Your task to perform on an android device: open app "VLC for Android" (install if not already installed) Image 0: 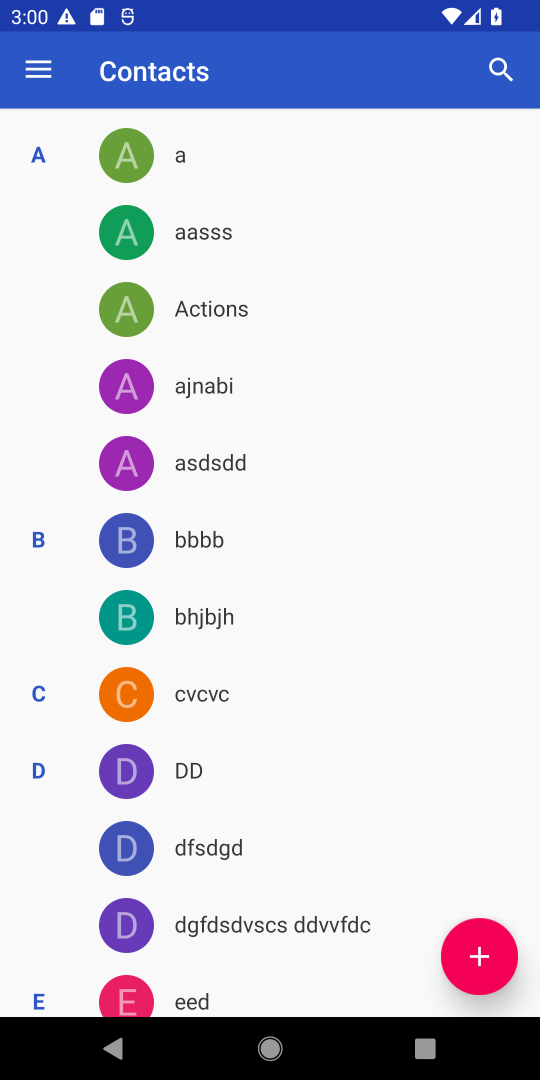
Step 0: press home button
Your task to perform on an android device: open app "VLC for Android" (install if not already installed) Image 1: 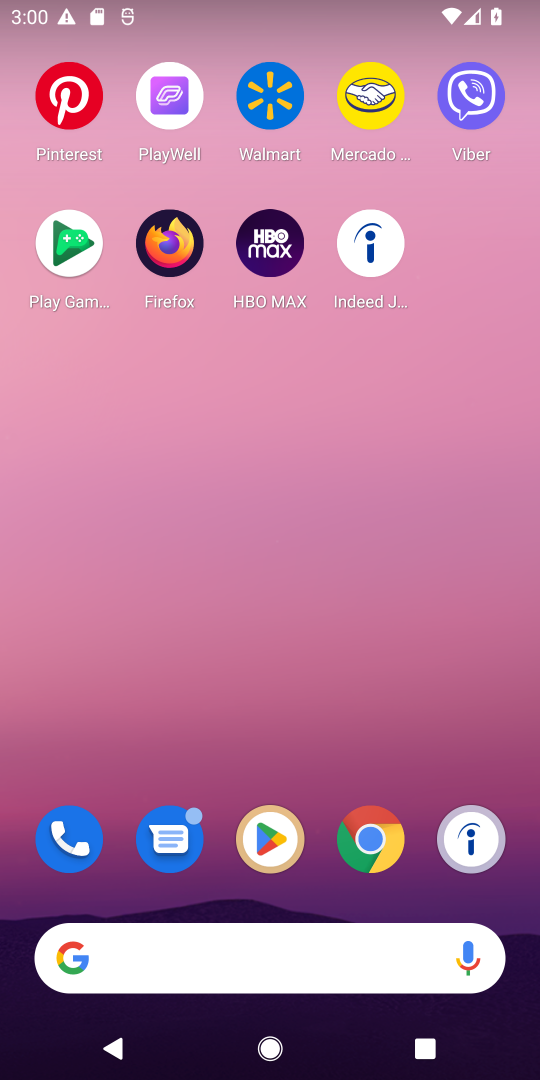
Step 1: click (249, 820)
Your task to perform on an android device: open app "VLC for Android" (install if not already installed) Image 2: 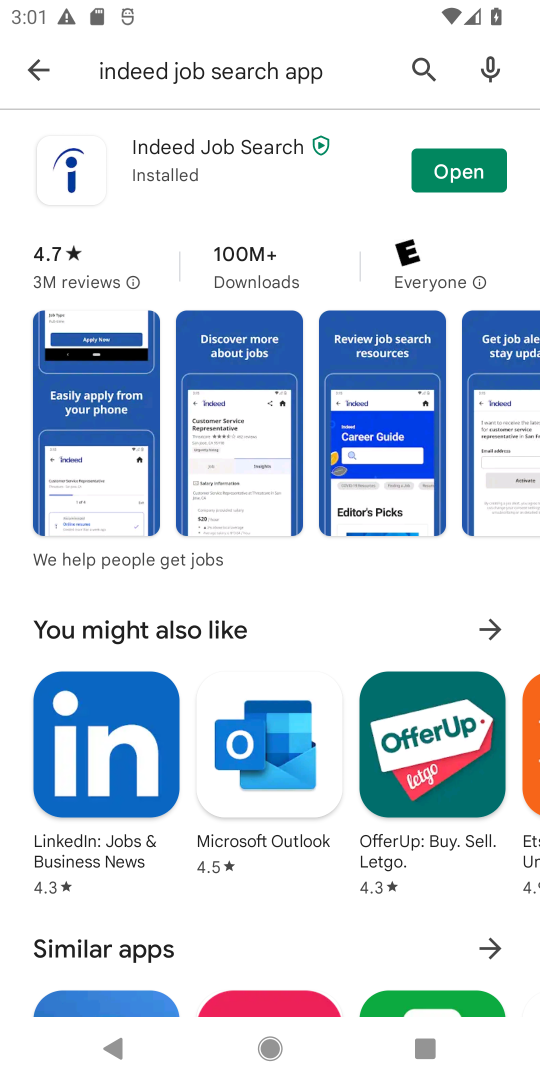
Step 2: click (23, 71)
Your task to perform on an android device: open app "VLC for Android" (install if not already installed) Image 3: 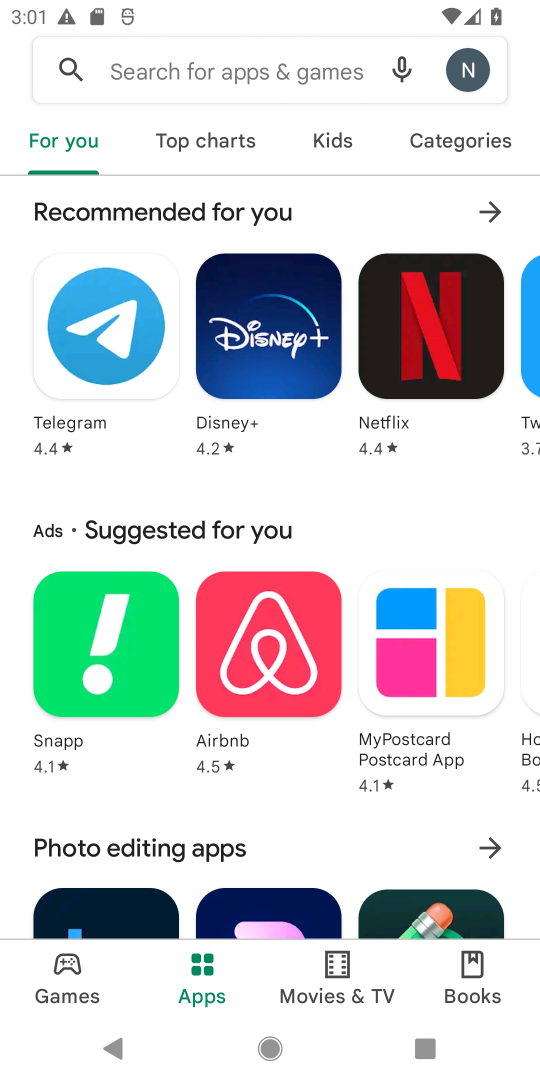
Step 3: click (190, 67)
Your task to perform on an android device: open app "VLC for Android" (install if not already installed) Image 4: 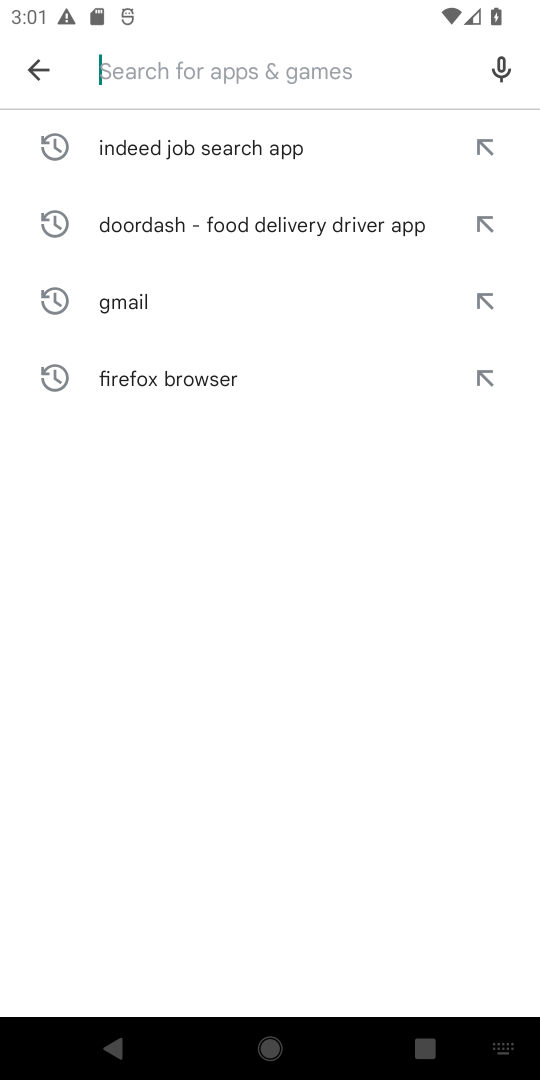
Step 4: type "VLC for Android"
Your task to perform on an android device: open app "VLC for Android" (install if not already installed) Image 5: 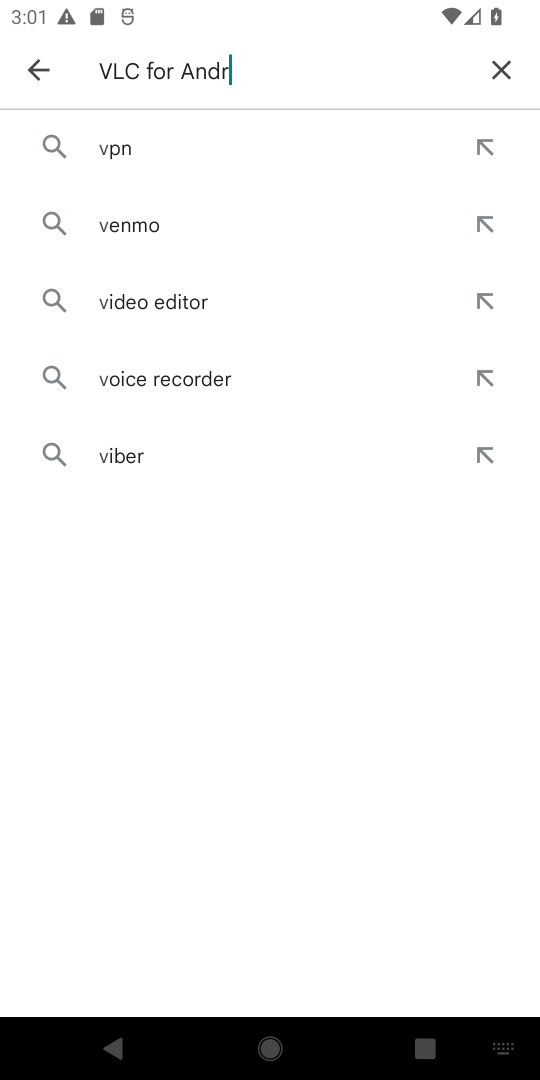
Step 5: type ""
Your task to perform on an android device: open app "VLC for Android" (install if not already installed) Image 6: 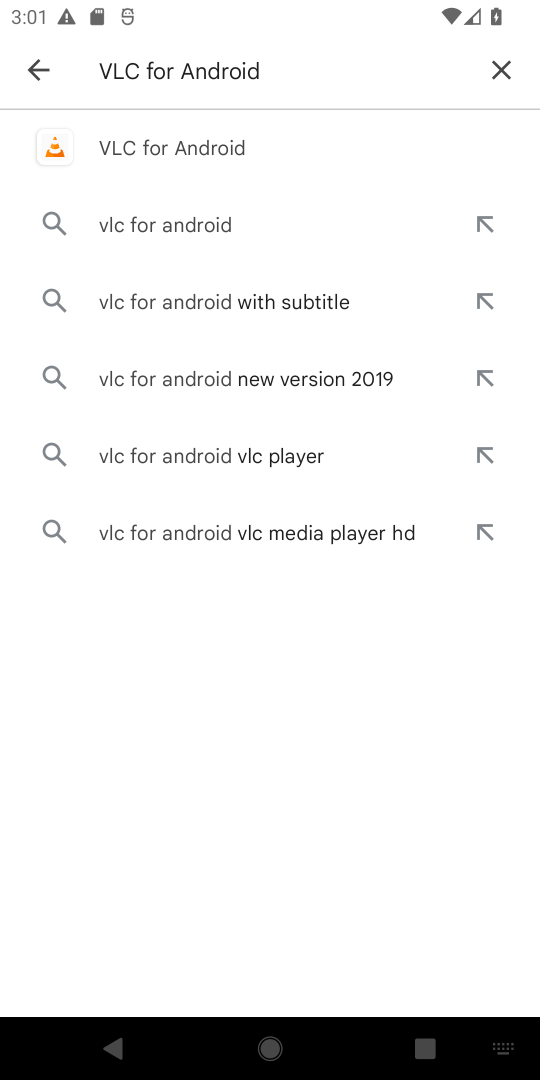
Step 6: click (193, 164)
Your task to perform on an android device: open app "VLC for Android" (install if not already installed) Image 7: 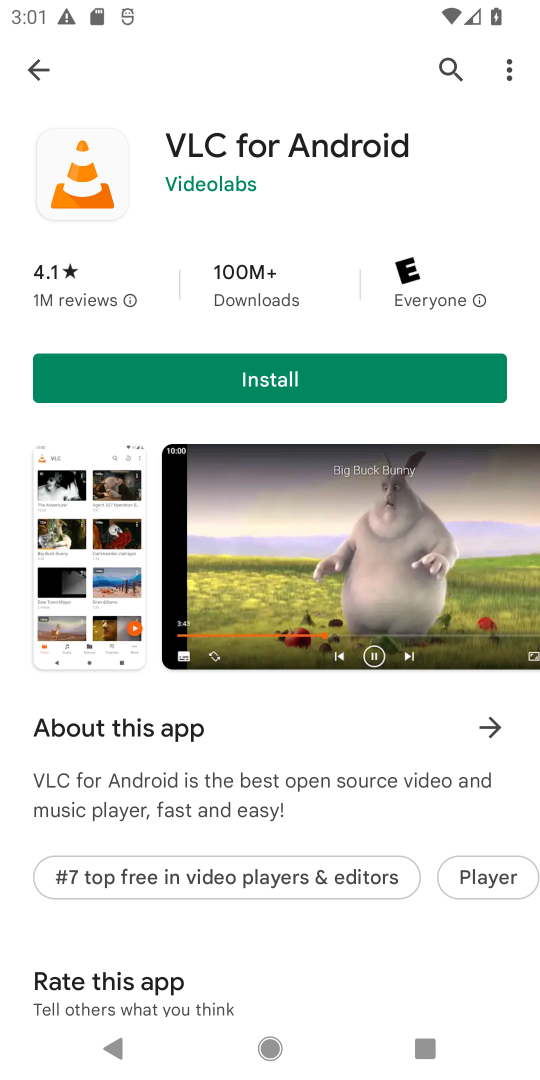
Step 7: click (153, 355)
Your task to perform on an android device: open app "VLC for Android" (install if not already installed) Image 8: 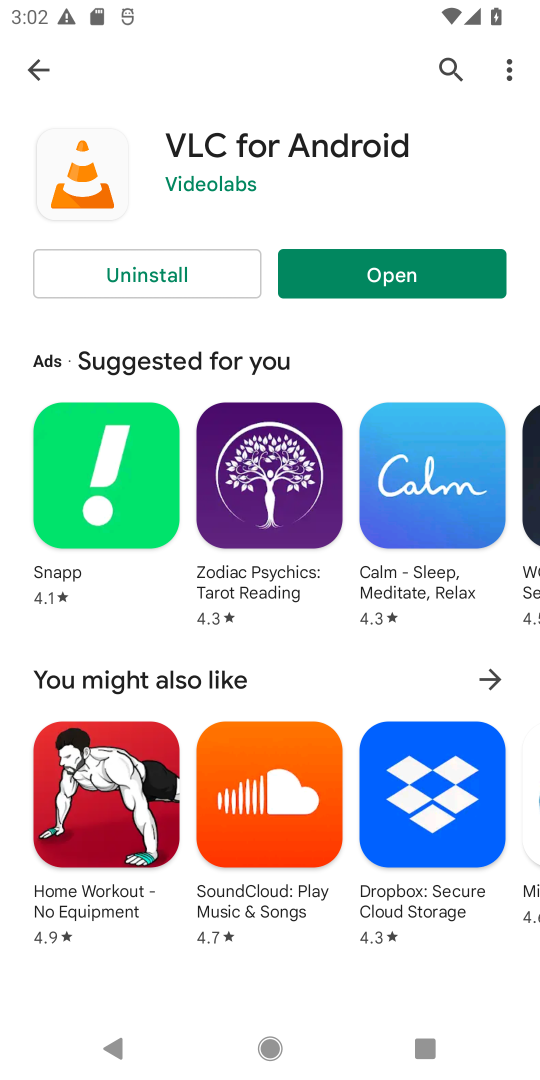
Step 8: click (485, 286)
Your task to perform on an android device: open app "VLC for Android" (install if not already installed) Image 9: 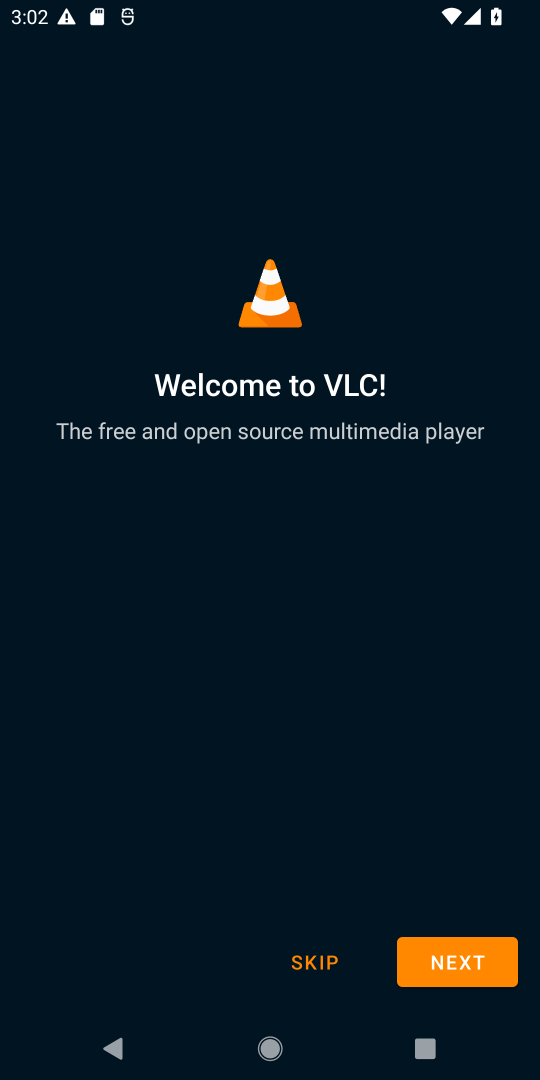
Step 9: task complete